Your task to perform on an android device: Open privacy settings Image 0: 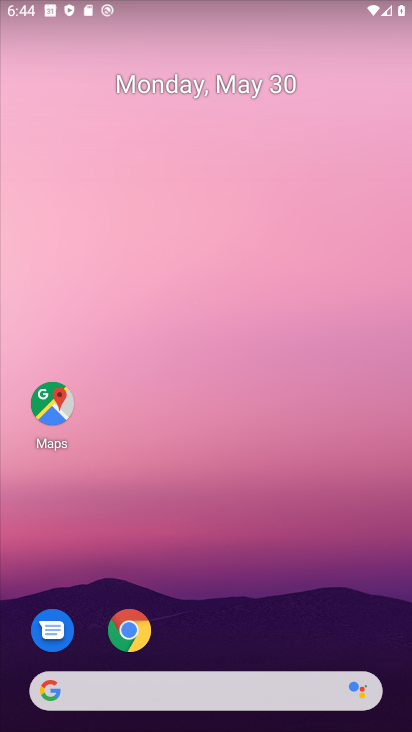
Step 0: drag from (303, 539) to (277, 53)
Your task to perform on an android device: Open privacy settings Image 1: 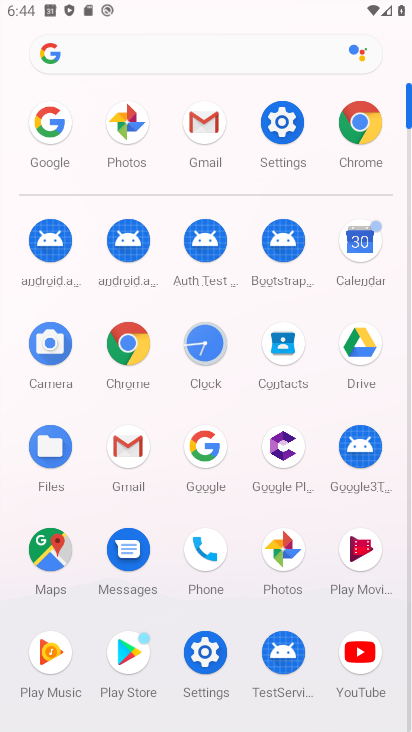
Step 1: click (289, 127)
Your task to perform on an android device: Open privacy settings Image 2: 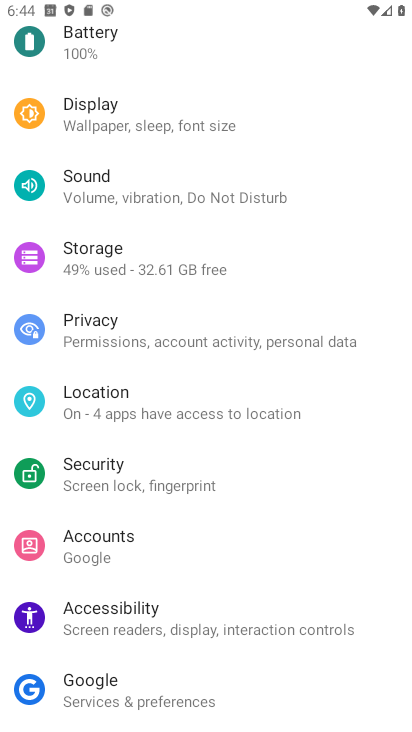
Step 2: click (135, 331)
Your task to perform on an android device: Open privacy settings Image 3: 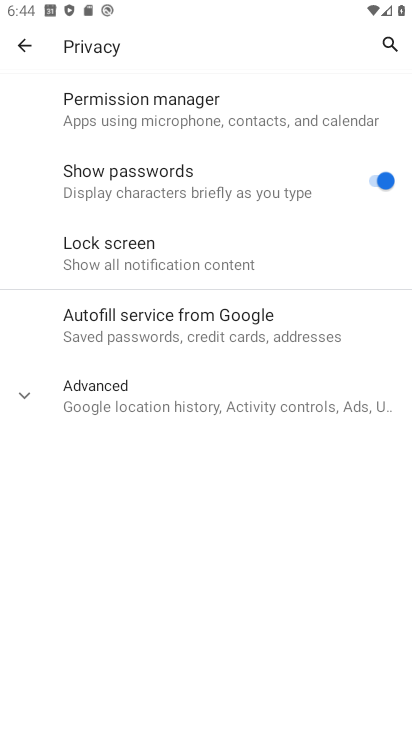
Step 3: task complete